Your task to perform on an android device: Go to privacy settings Image 0: 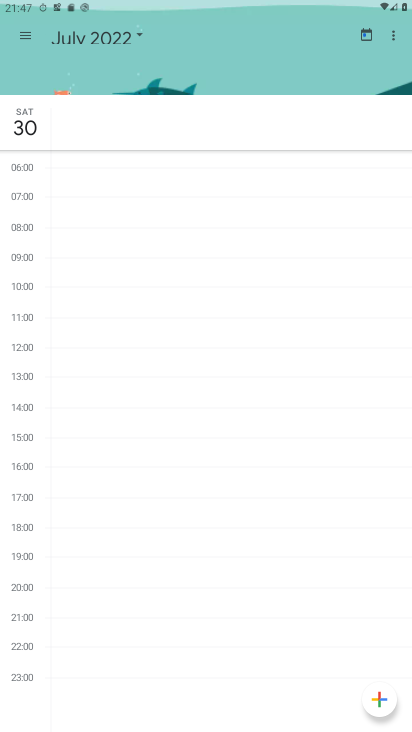
Step 0: press home button
Your task to perform on an android device: Go to privacy settings Image 1: 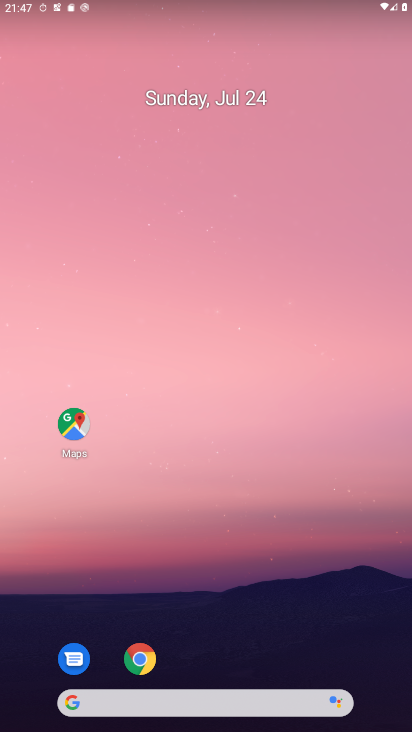
Step 1: drag from (211, 724) to (211, 118)
Your task to perform on an android device: Go to privacy settings Image 2: 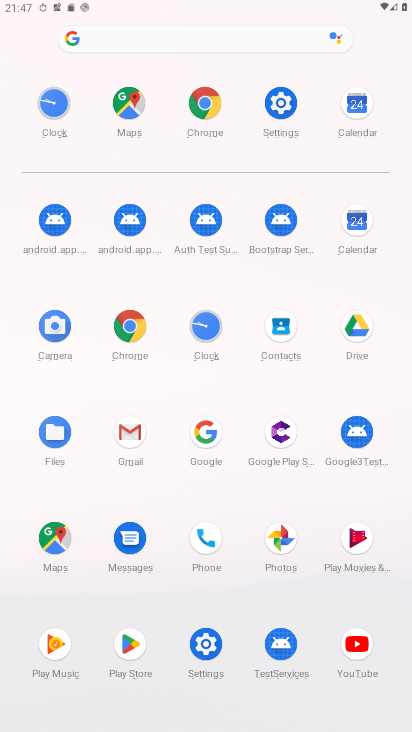
Step 2: click (287, 104)
Your task to perform on an android device: Go to privacy settings Image 3: 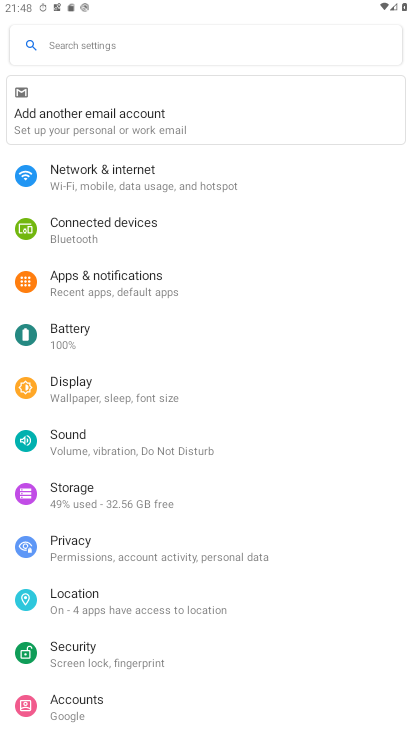
Step 3: click (73, 544)
Your task to perform on an android device: Go to privacy settings Image 4: 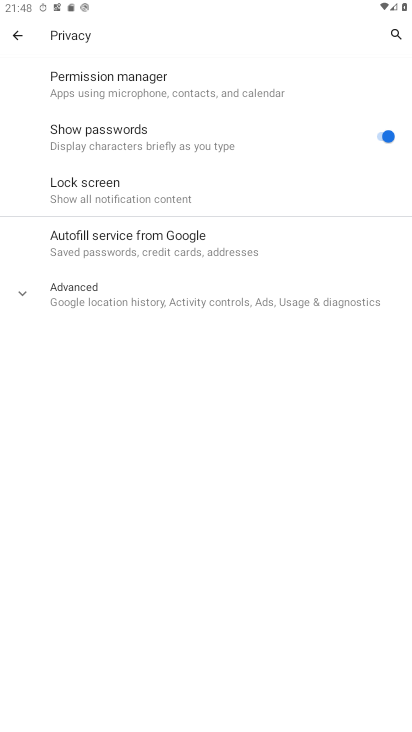
Step 4: task complete